Your task to perform on an android device: Open Chrome and go to the settings page Image 0: 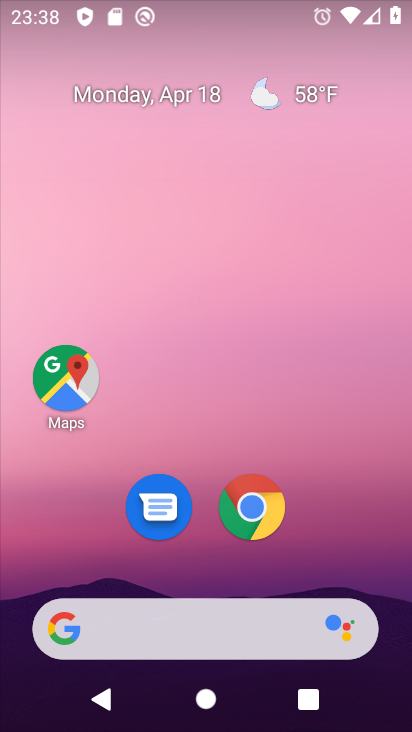
Step 0: click (256, 492)
Your task to perform on an android device: Open Chrome and go to the settings page Image 1: 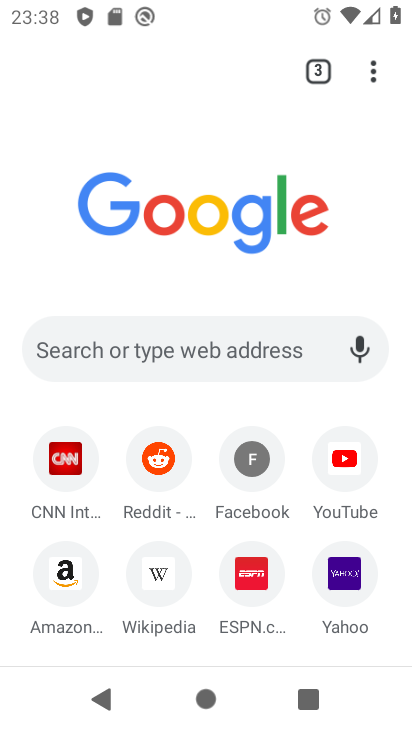
Step 1: click (379, 83)
Your task to perform on an android device: Open Chrome and go to the settings page Image 2: 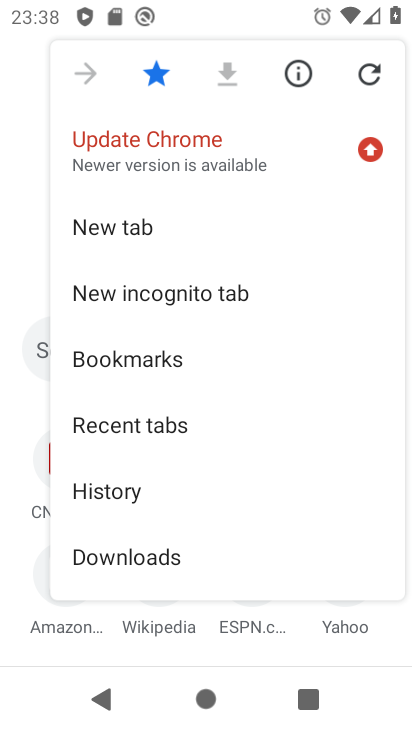
Step 2: drag from (161, 520) to (173, 144)
Your task to perform on an android device: Open Chrome and go to the settings page Image 3: 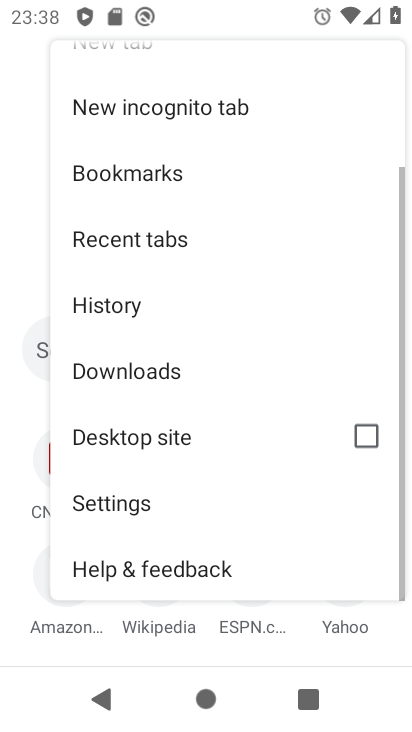
Step 3: click (138, 489)
Your task to perform on an android device: Open Chrome and go to the settings page Image 4: 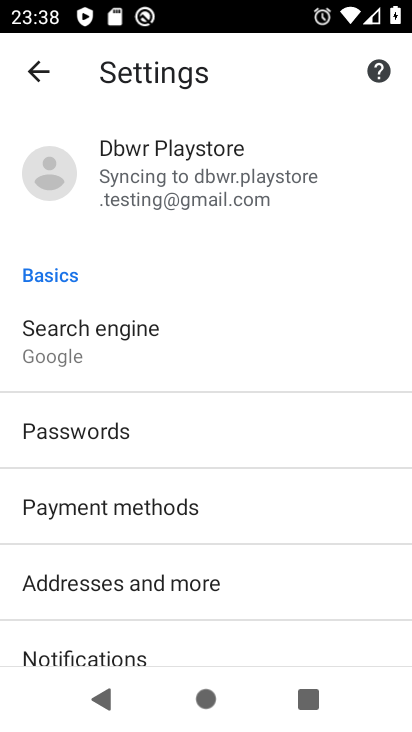
Step 4: task complete